Your task to perform on an android device: Look up the best rated book on Goodreads Image 0: 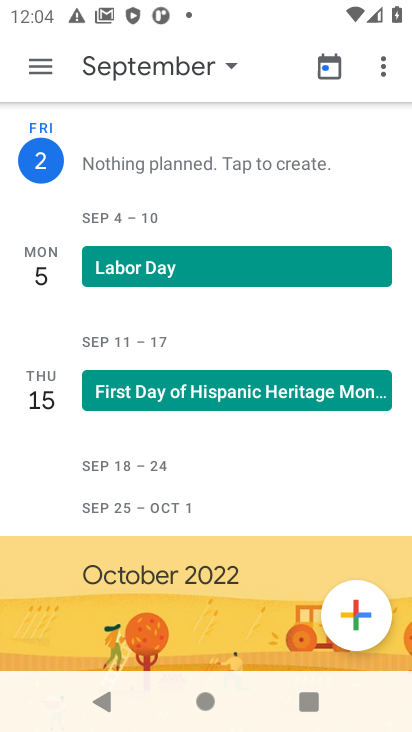
Step 0: press home button
Your task to perform on an android device: Look up the best rated book on Goodreads Image 1: 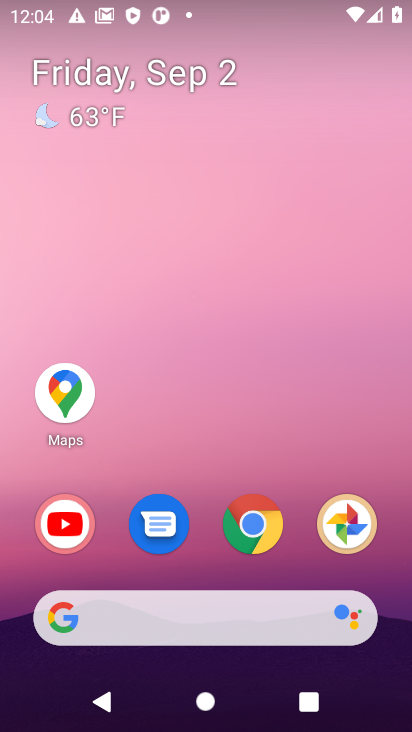
Step 1: click (246, 523)
Your task to perform on an android device: Look up the best rated book on Goodreads Image 2: 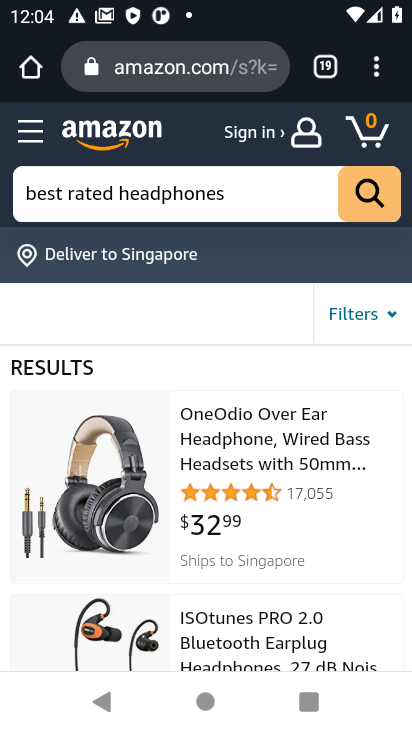
Step 2: click (326, 64)
Your task to perform on an android device: Look up the best rated book on Goodreads Image 3: 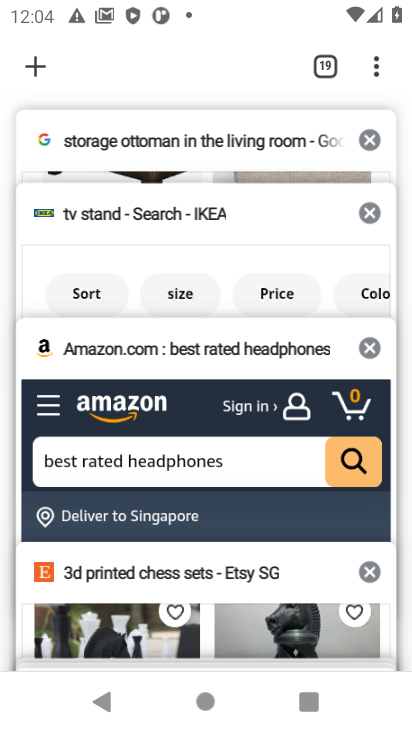
Step 3: drag from (193, 575) to (143, 136)
Your task to perform on an android device: Look up the best rated book on Goodreads Image 4: 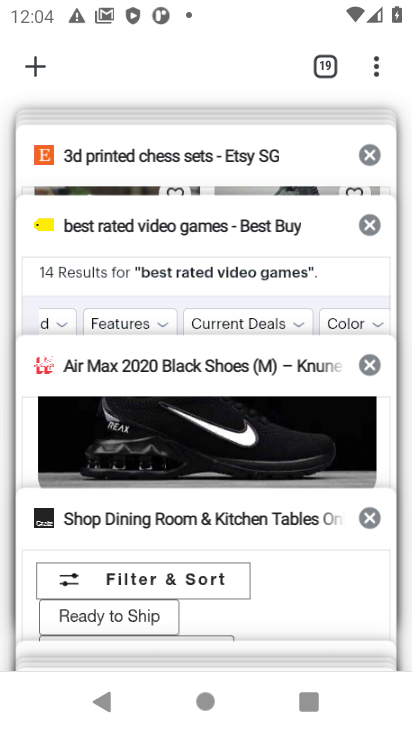
Step 4: drag from (235, 524) to (197, 129)
Your task to perform on an android device: Look up the best rated book on Goodreads Image 5: 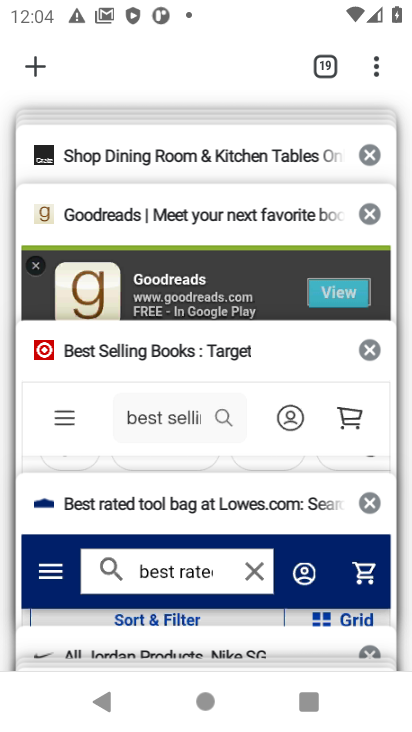
Step 5: click (157, 333)
Your task to perform on an android device: Look up the best rated book on Goodreads Image 6: 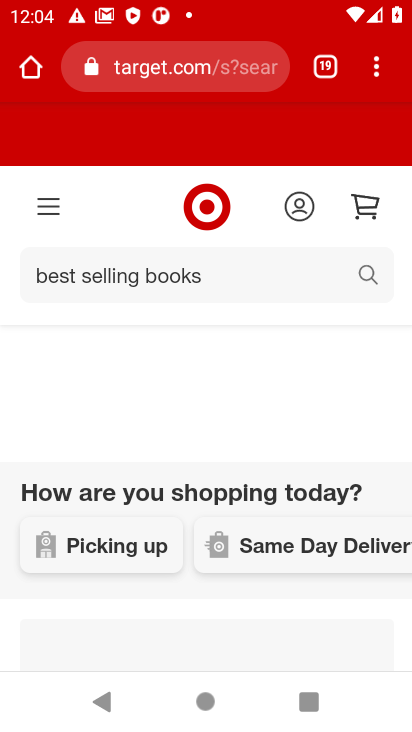
Step 6: click (176, 277)
Your task to perform on an android device: Look up the best rated book on Goodreads Image 7: 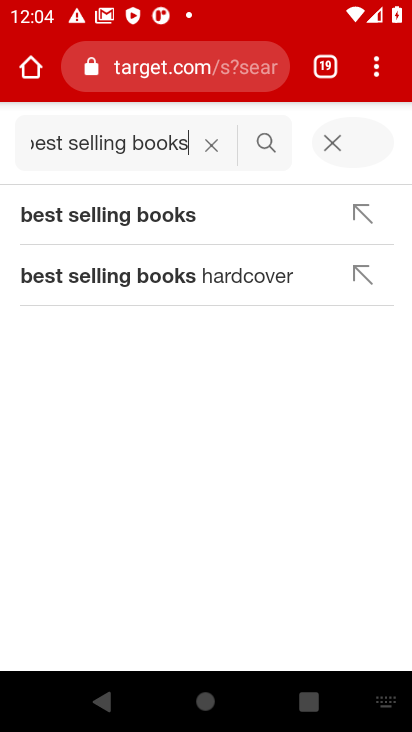
Step 7: click (211, 145)
Your task to perform on an android device: Look up the best rated book on Goodreads Image 8: 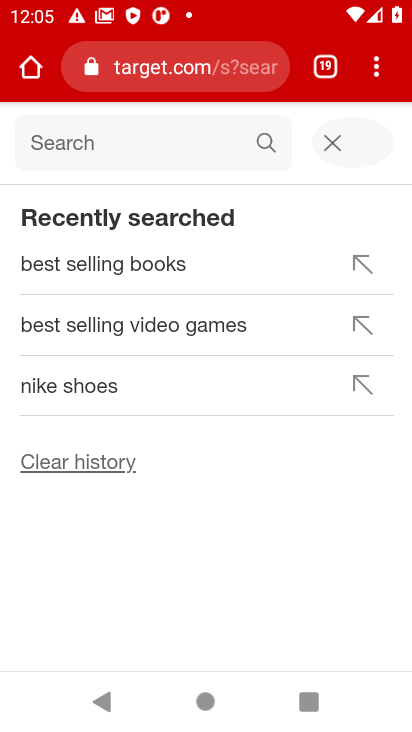
Step 8: type "best rated book"
Your task to perform on an android device: Look up the best rated book on Goodreads Image 9: 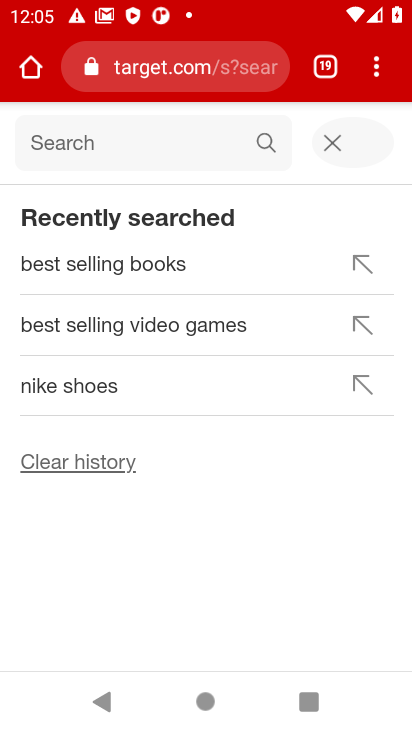
Step 9: click (207, 147)
Your task to perform on an android device: Look up the best rated book on Goodreads Image 10: 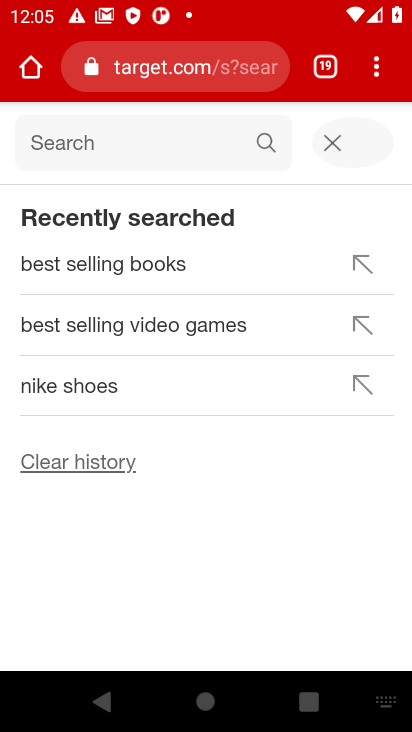
Step 10: click (161, 149)
Your task to perform on an android device: Look up the best rated book on Goodreads Image 11: 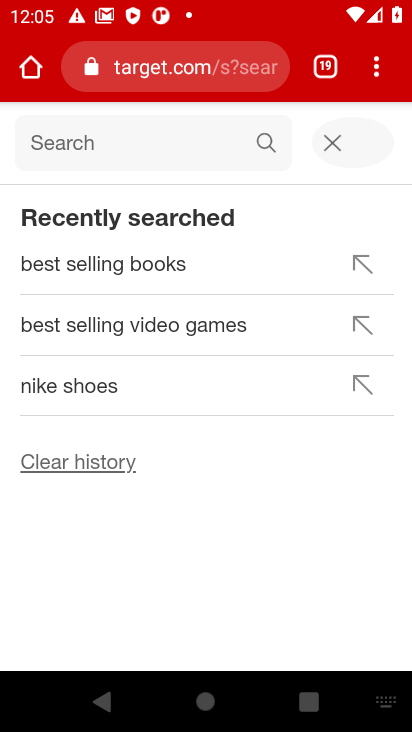
Step 11: type "best rated book"
Your task to perform on an android device: Look up the best rated book on Goodreads Image 12: 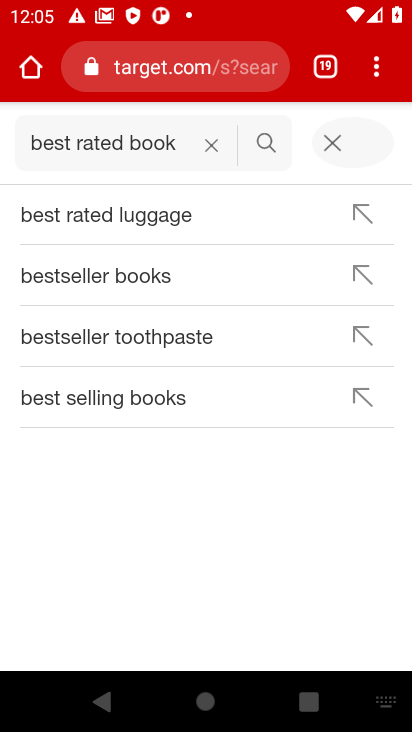
Step 12: click (262, 146)
Your task to perform on an android device: Look up the best rated book on Goodreads Image 13: 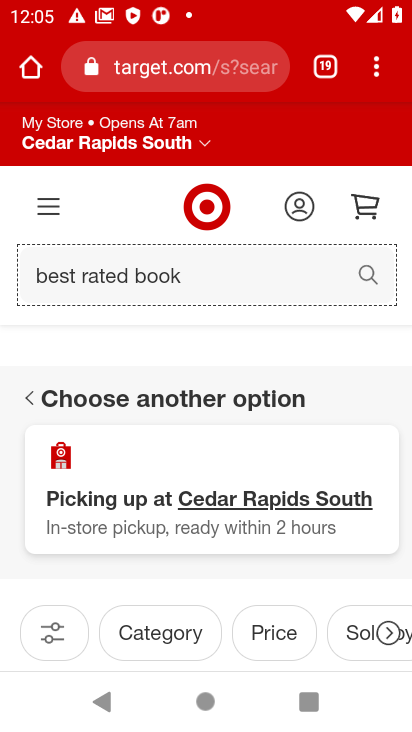
Step 13: task complete